Your task to perform on an android device: Open Yahoo.com Image 0: 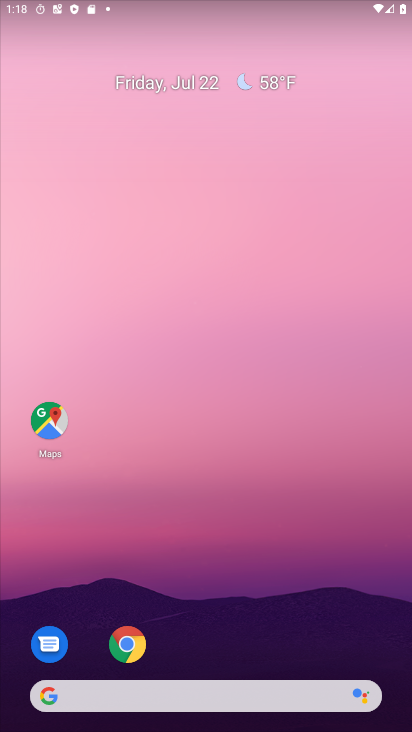
Step 0: click (291, 92)
Your task to perform on an android device: Open Yahoo.com Image 1: 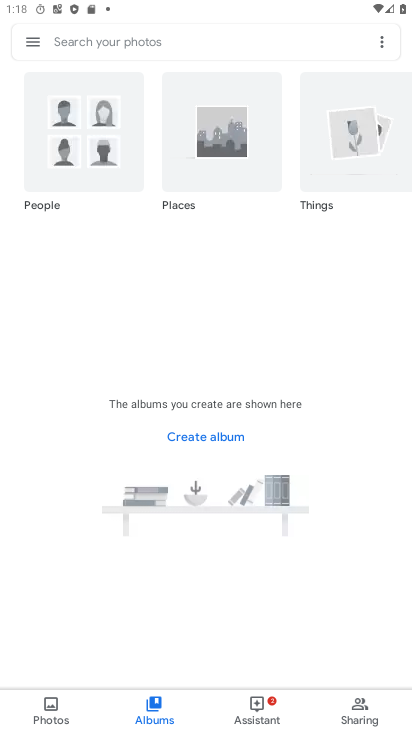
Step 1: press home button
Your task to perform on an android device: Open Yahoo.com Image 2: 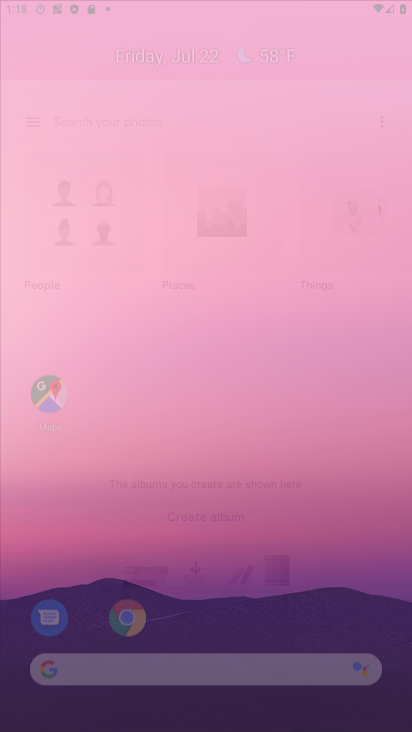
Step 2: drag from (230, 554) to (290, 176)
Your task to perform on an android device: Open Yahoo.com Image 3: 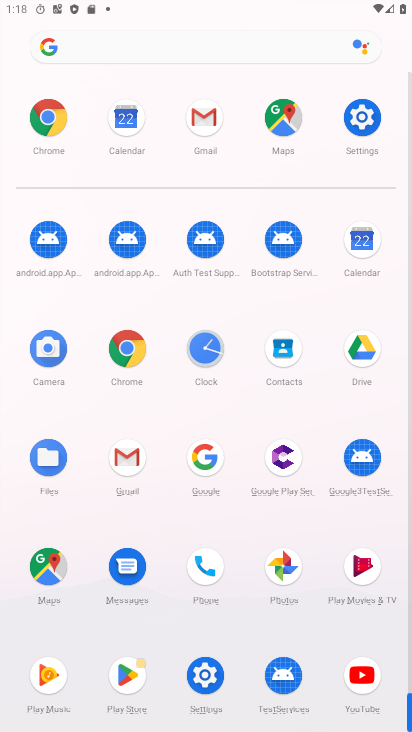
Step 3: click (201, 51)
Your task to perform on an android device: Open Yahoo.com Image 4: 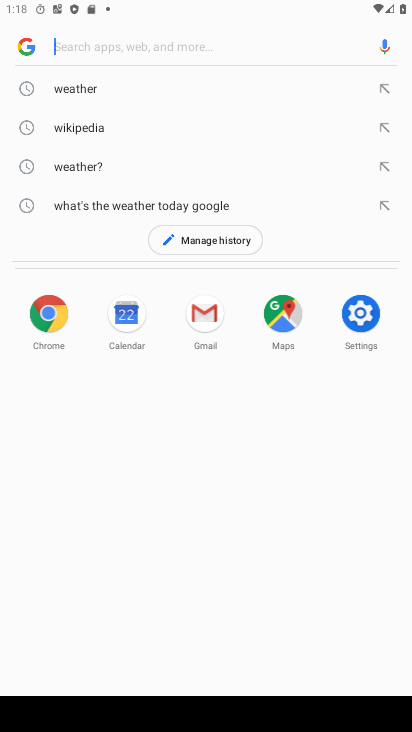
Step 4: type "Yahoo.com"
Your task to perform on an android device: Open Yahoo.com Image 5: 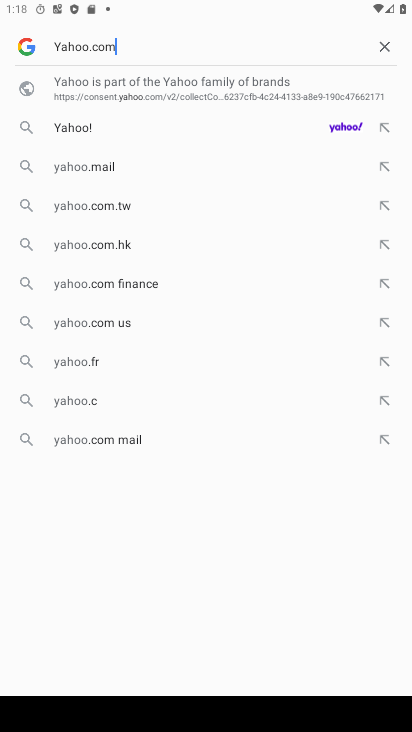
Step 5: type ""
Your task to perform on an android device: Open Yahoo.com Image 6: 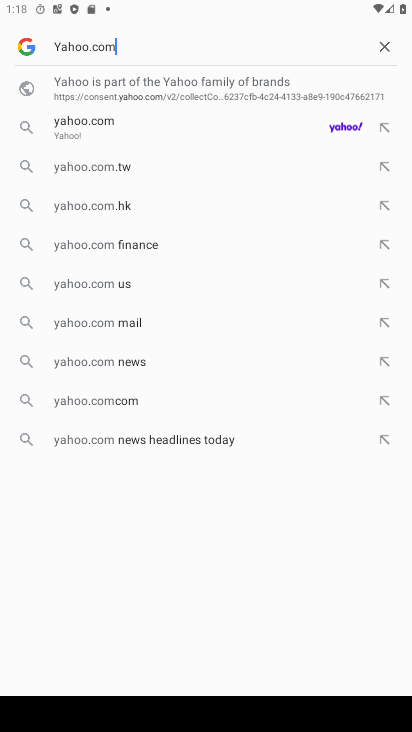
Step 6: click (110, 118)
Your task to perform on an android device: Open Yahoo.com Image 7: 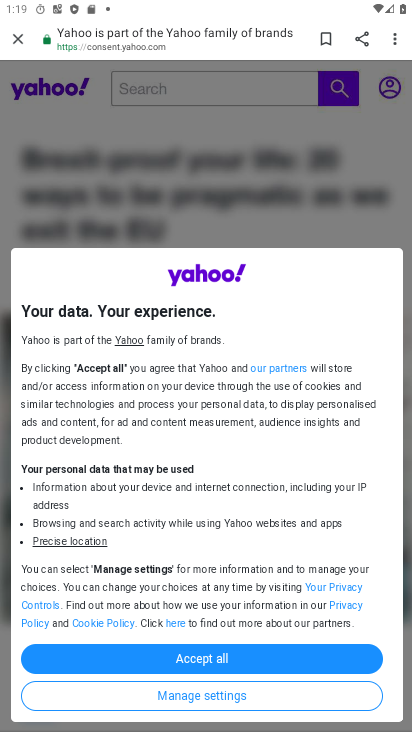
Step 7: task complete